Your task to perform on an android device: set an alarm Image 0: 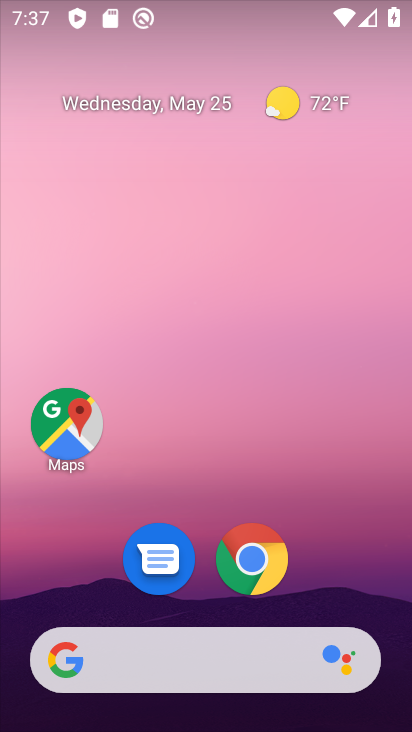
Step 0: drag from (189, 662) to (276, 92)
Your task to perform on an android device: set an alarm Image 1: 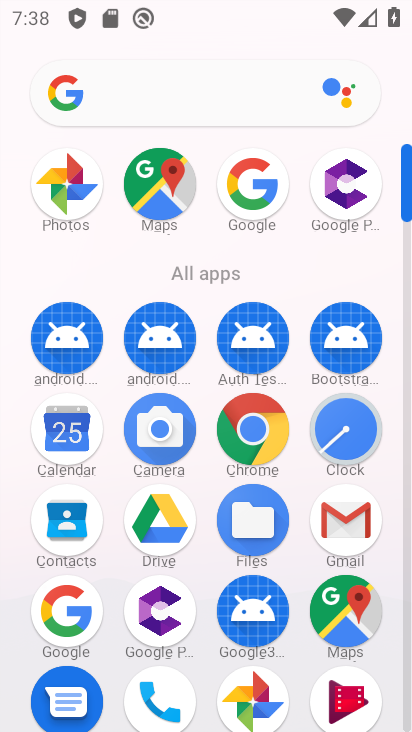
Step 1: click (367, 447)
Your task to perform on an android device: set an alarm Image 2: 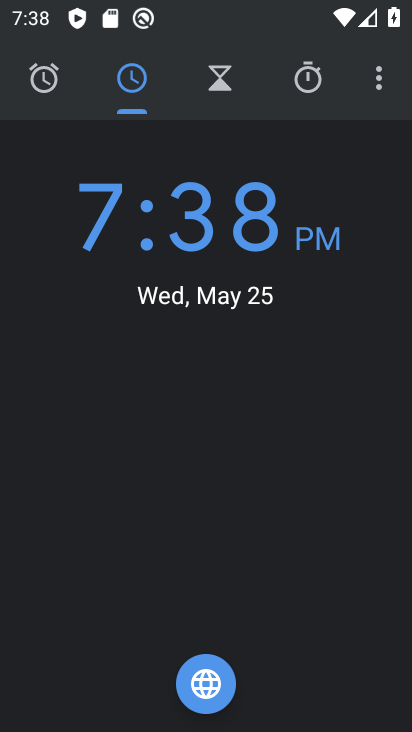
Step 2: click (48, 98)
Your task to perform on an android device: set an alarm Image 3: 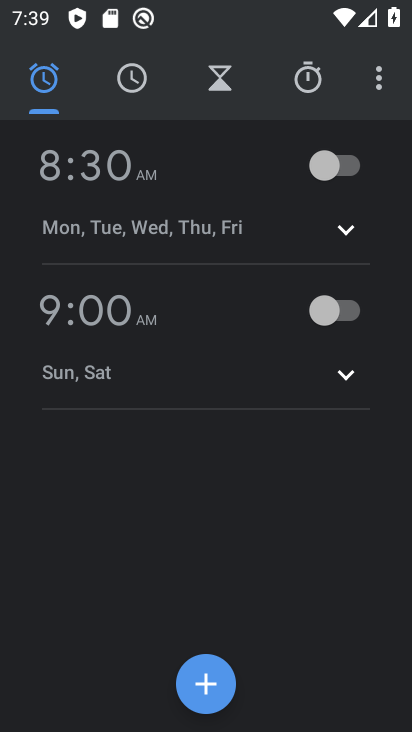
Step 3: click (201, 682)
Your task to perform on an android device: set an alarm Image 4: 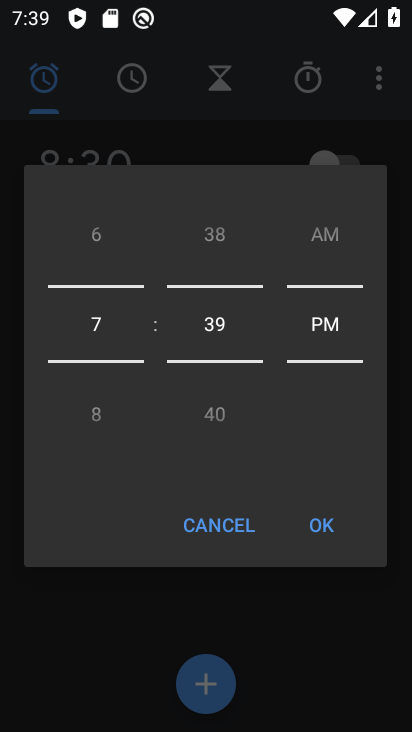
Step 4: click (321, 511)
Your task to perform on an android device: set an alarm Image 5: 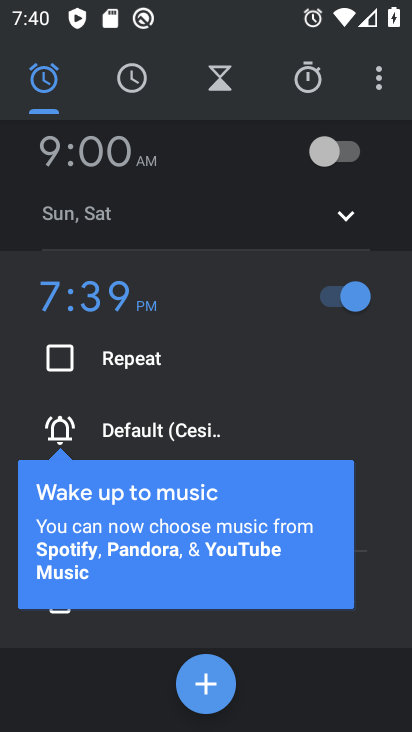
Step 5: task complete